Your task to perform on an android device: Open Google Maps and go to "Timeline" Image 0: 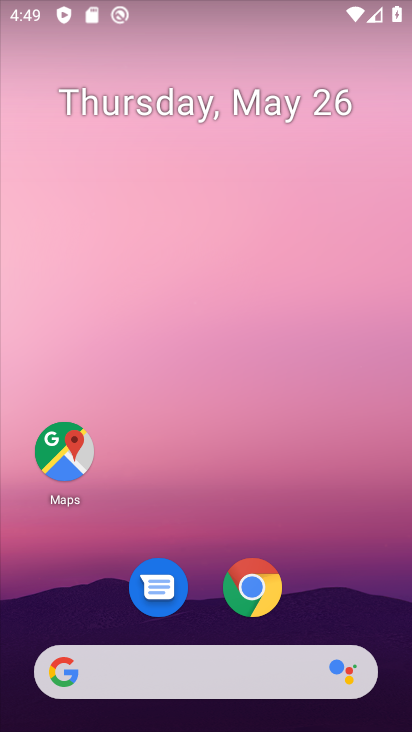
Step 0: click (63, 456)
Your task to perform on an android device: Open Google Maps and go to "Timeline" Image 1: 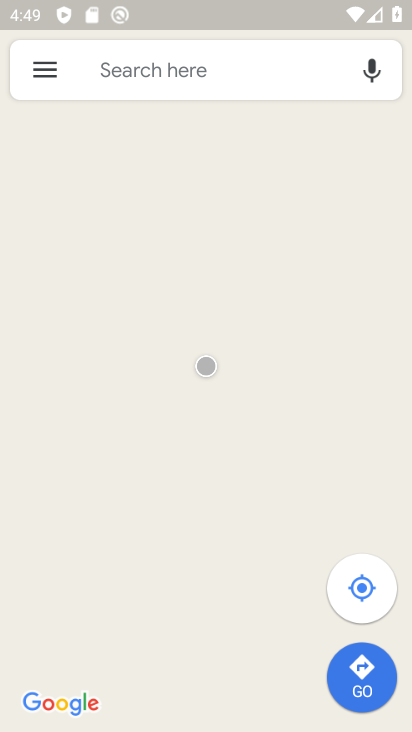
Step 1: click (46, 70)
Your task to perform on an android device: Open Google Maps and go to "Timeline" Image 2: 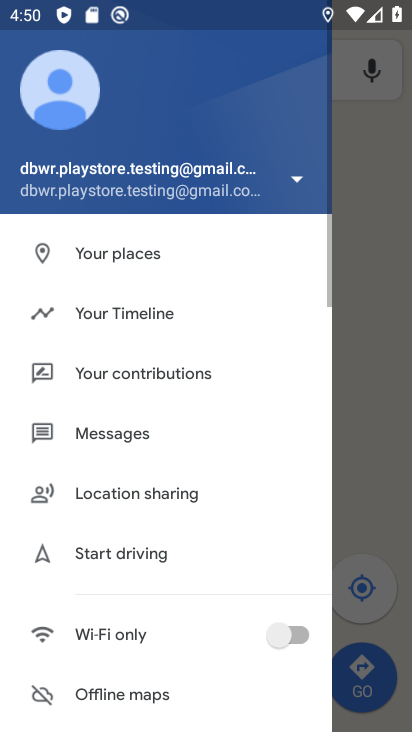
Step 2: click (149, 309)
Your task to perform on an android device: Open Google Maps and go to "Timeline" Image 3: 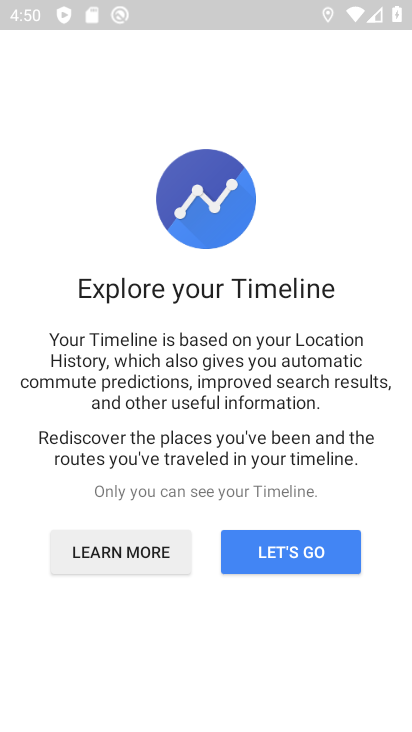
Step 3: click (298, 549)
Your task to perform on an android device: Open Google Maps and go to "Timeline" Image 4: 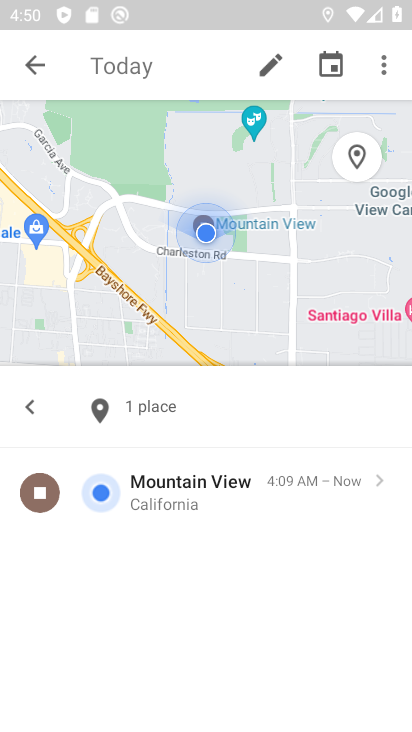
Step 4: task complete